Your task to perform on an android device: uninstall "Gmail" Image 0: 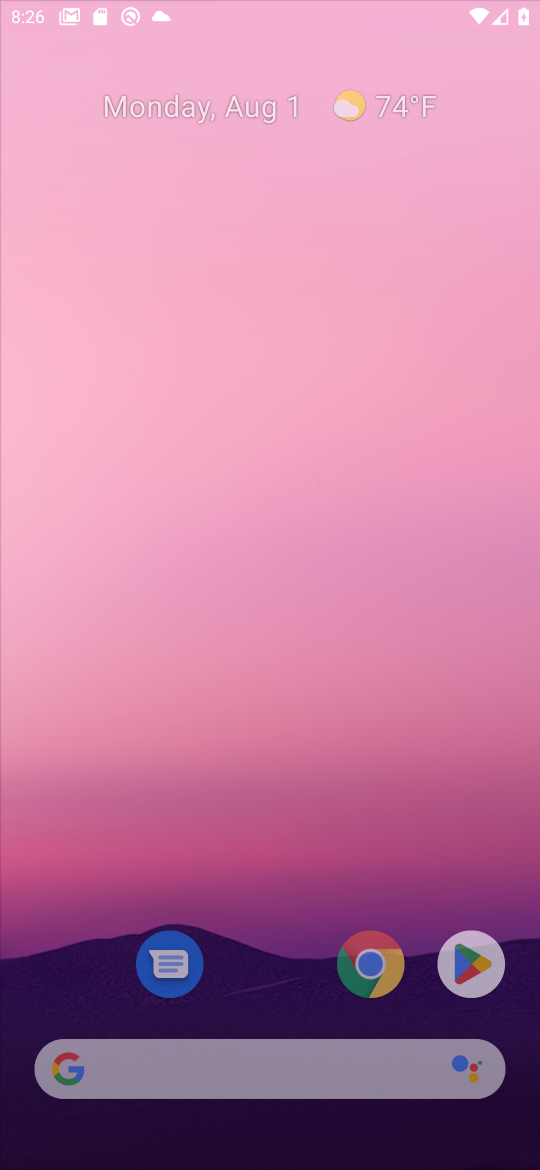
Step 0: press home button
Your task to perform on an android device: uninstall "Gmail" Image 1: 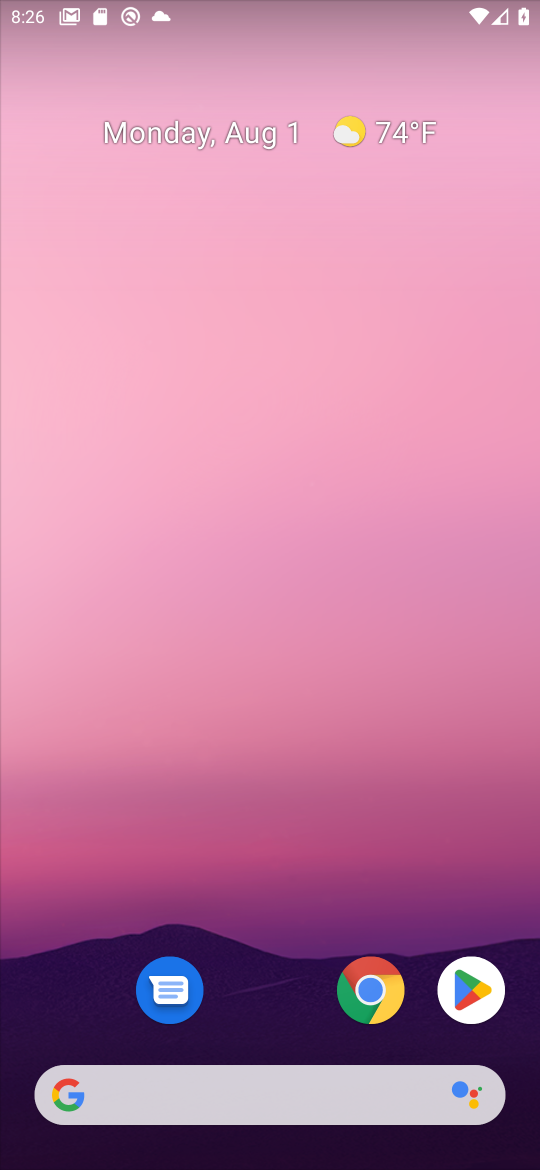
Step 1: click (486, 993)
Your task to perform on an android device: uninstall "Gmail" Image 2: 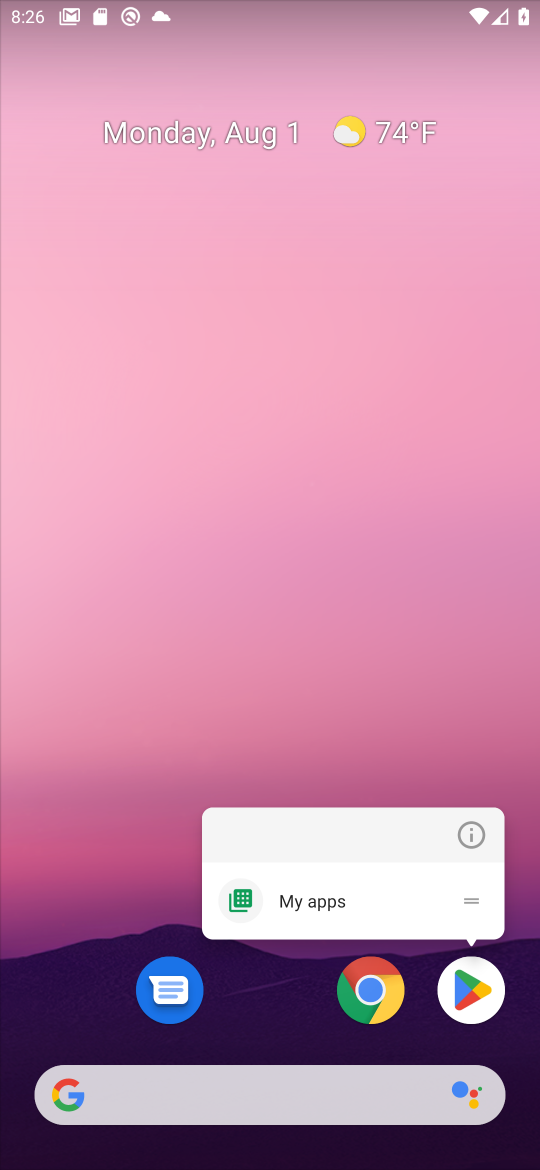
Step 2: click (462, 996)
Your task to perform on an android device: uninstall "Gmail" Image 3: 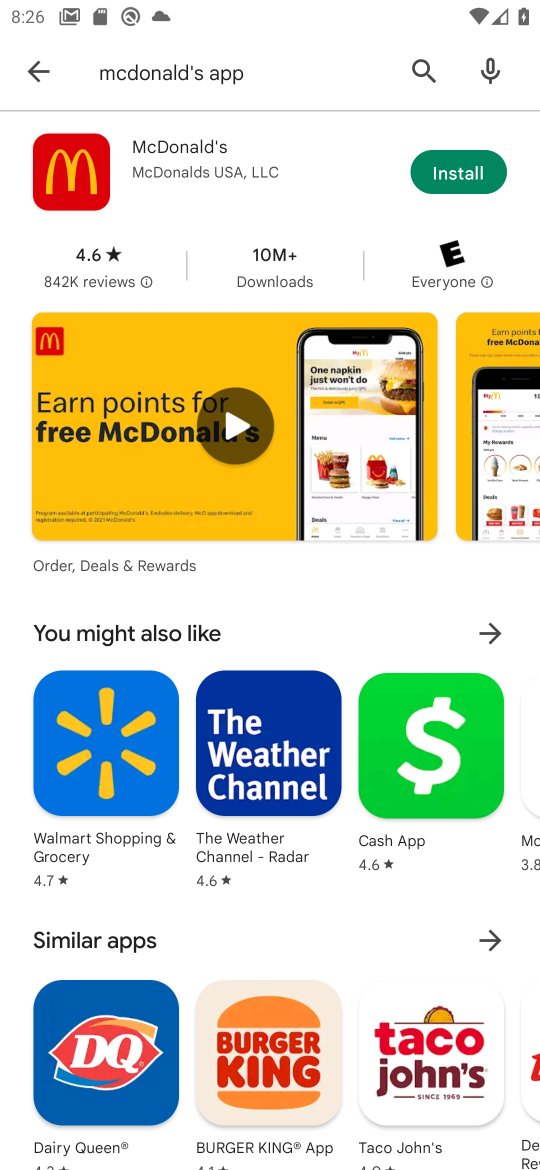
Step 3: click (414, 71)
Your task to perform on an android device: uninstall "Gmail" Image 4: 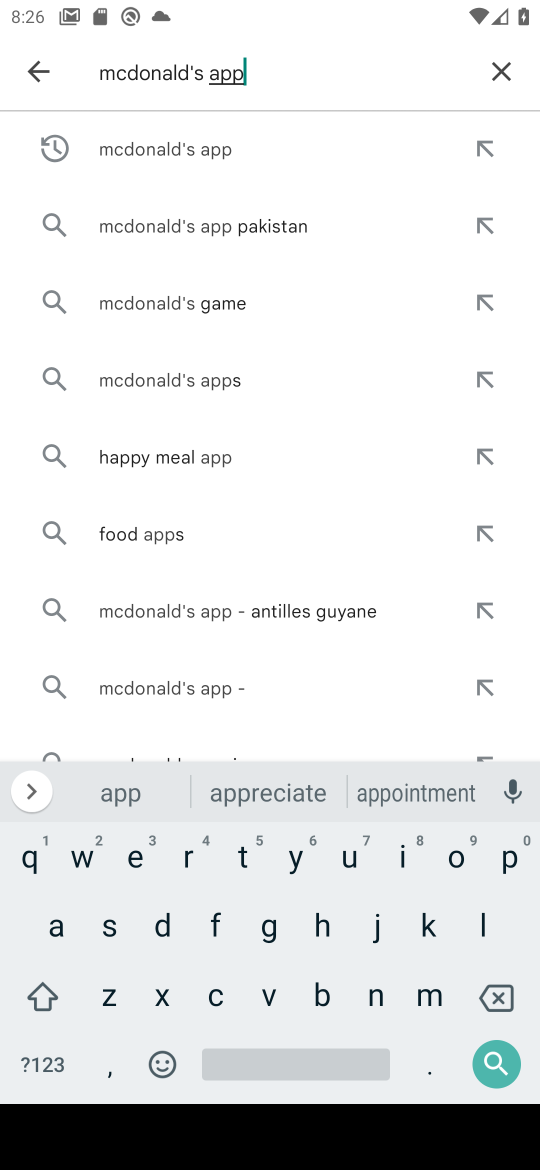
Step 4: click (487, 70)
Your task to perform on an android device: uninstall "Gmail" Image 5: 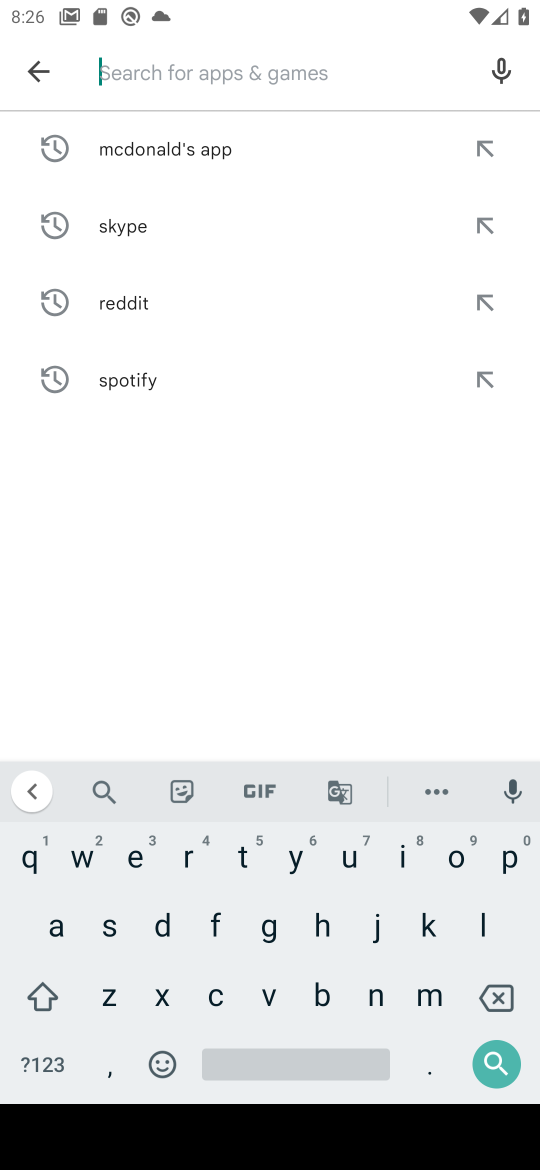
Step 5: click (263, 940)
Your task to perform on an android device: uninstall "Gmail" Image 6: 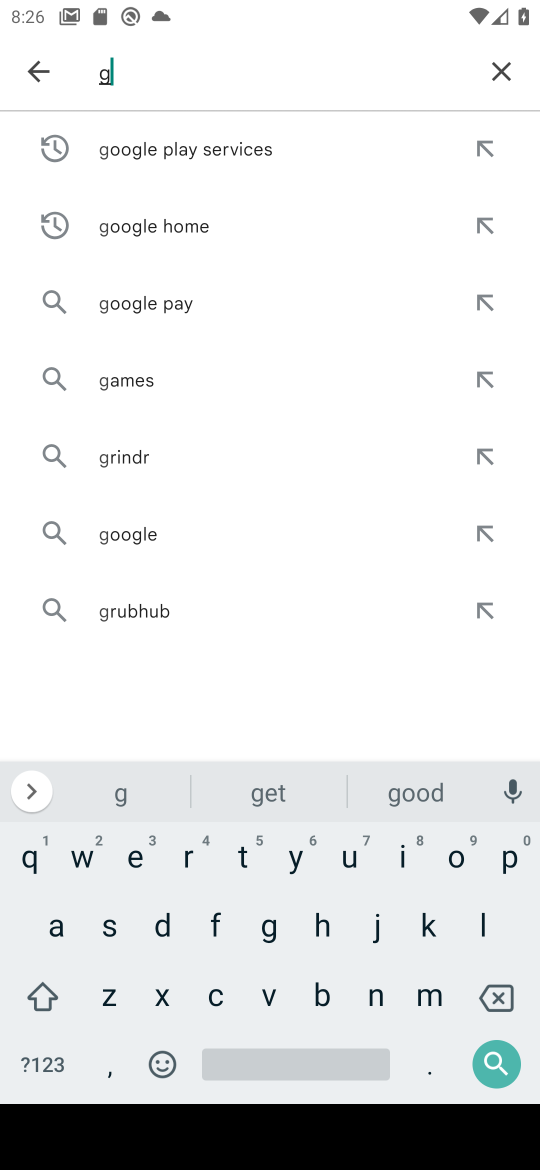
Step 6: click (428, 986)
Your task to perform on an android device: uninstall "Gmail" Image 7: 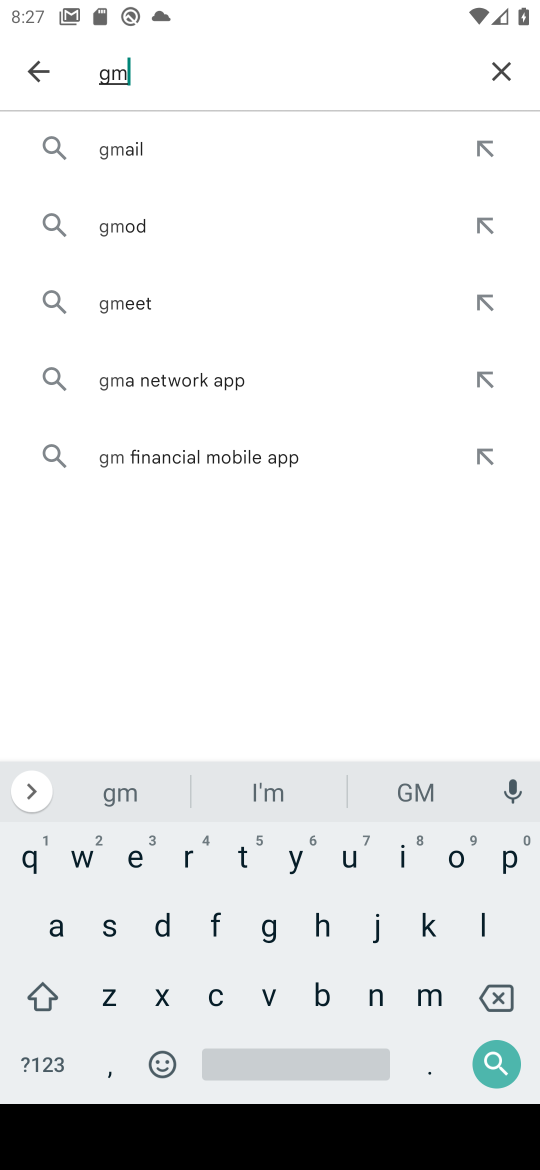
Step 7: click (134, 148)
Your task to perform on an android device: uninstall "Gmail" Image 8: 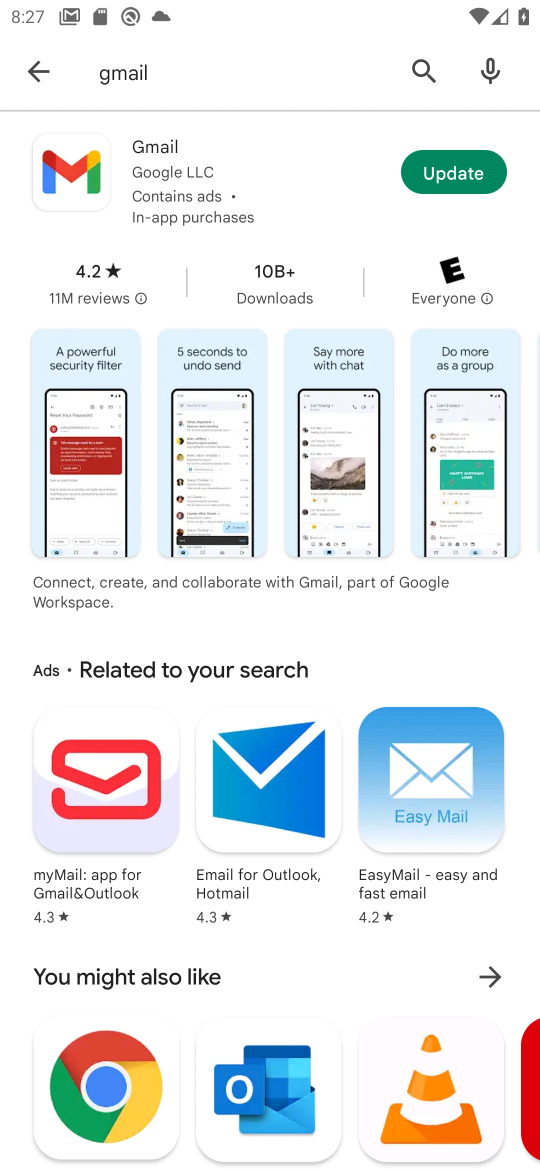
Step 8: click (66, 186)
Your task to perform on an android device: uninstall "Gmail" Image 9: 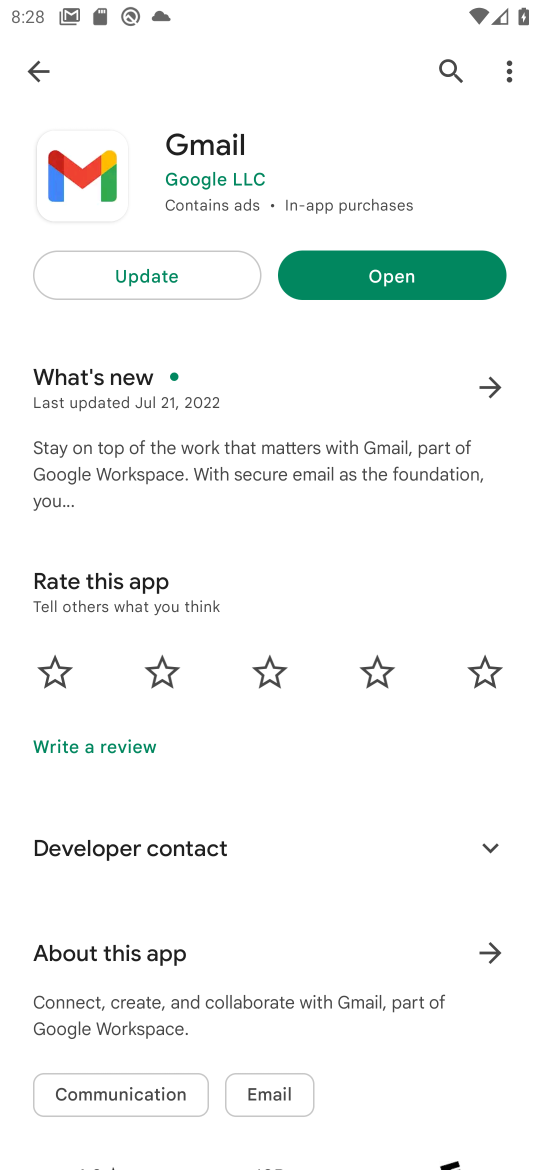
Step 9: task complete